Your task to perform on an android device: Open my contact list Image 0: 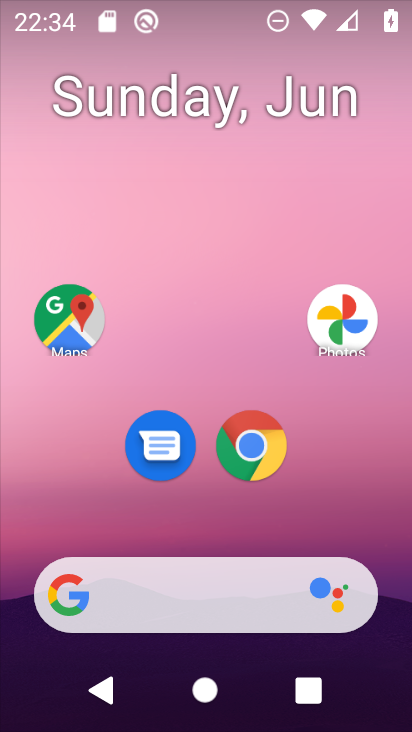
Step 0: press home button
Your task to perform on an android device: Open my contact list Image 1: 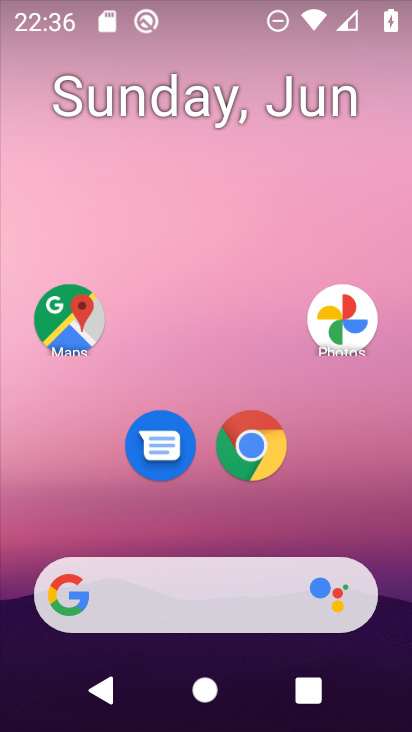
Step 1: drag from (195, 539) to (120, 105)
Your task to perform on an android device: Open my contact list Image 2: 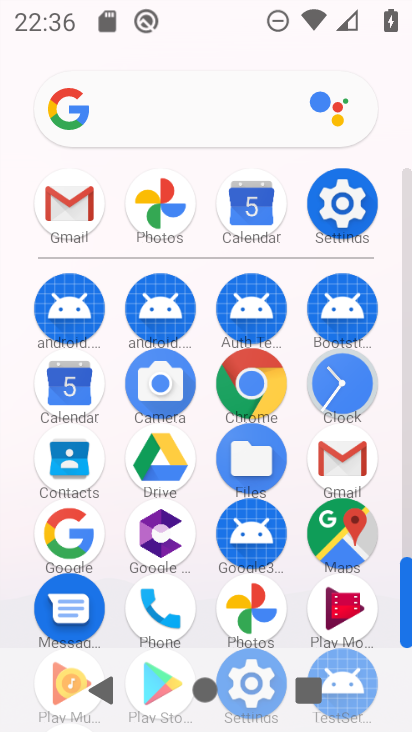
Step 2: click (67, 463)
Your task to perform on an android device: Open my contact list Image 3: 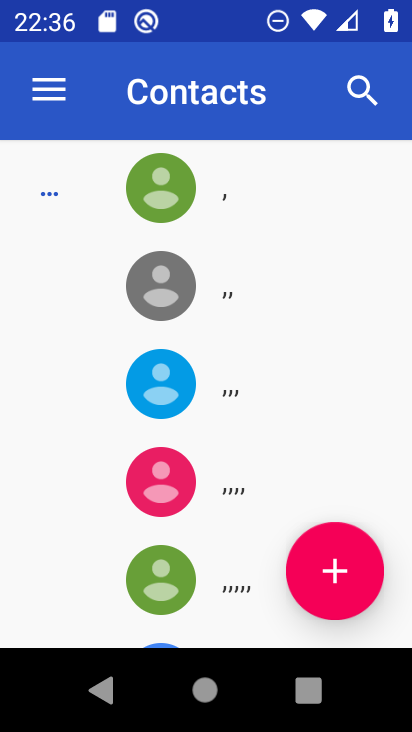
Step 3: task complete